Your task to perform on an android device: Open Google Image 0: 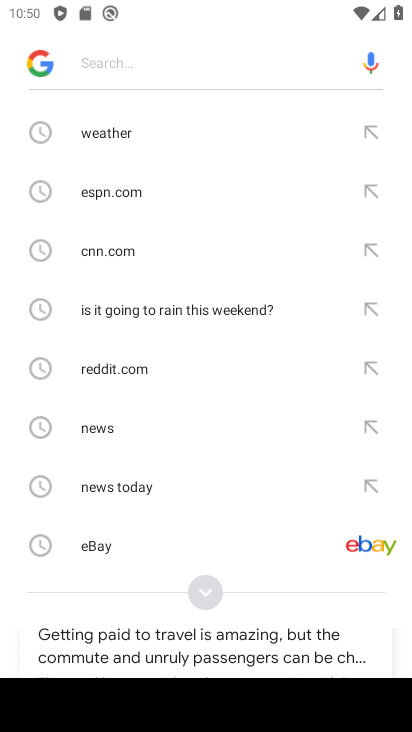
Step 0: task complete